Your task to perform on an android device: read, delete, or share a saved page in the chrome app Image 0: 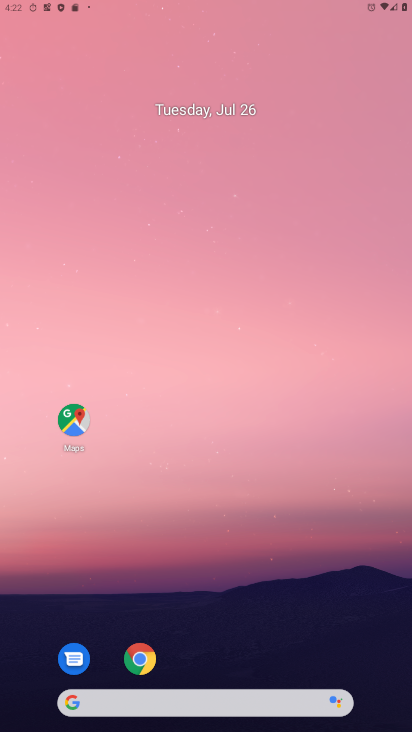
Step 0: press home button
Your task to perform on an android device: read, delete, or share a saved page in the chrome app Image 1: 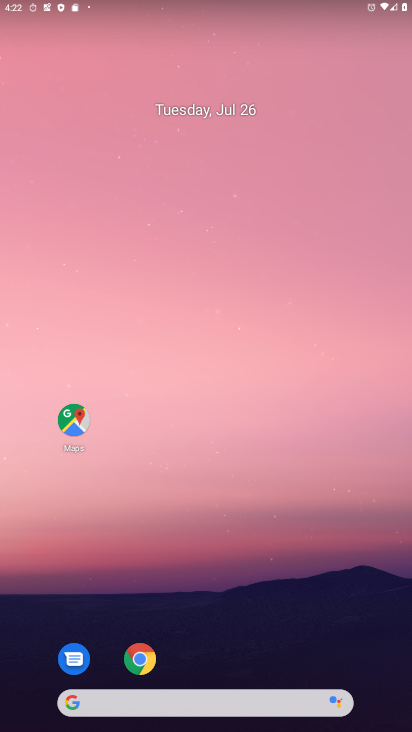
Step 1: drag from (211, 654) to (247, 110)
Your task to perform on an android device: read, delete, or share a saved page in the chrome app Image 2: 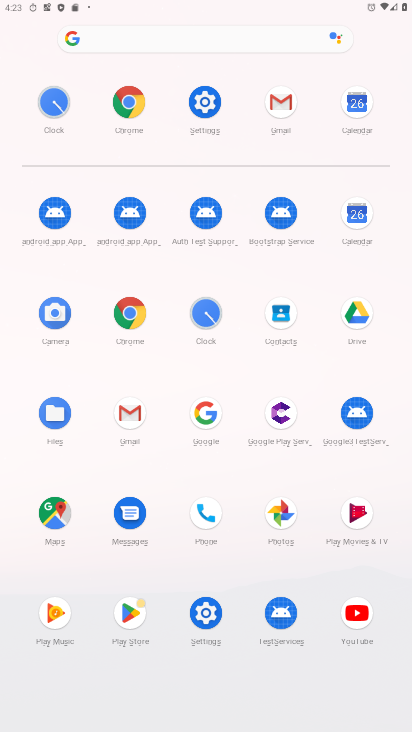
Step 2: click (130, 102)
Your task to perform on an android device: read, delete, or share a saved page in the chrome app Image 3: 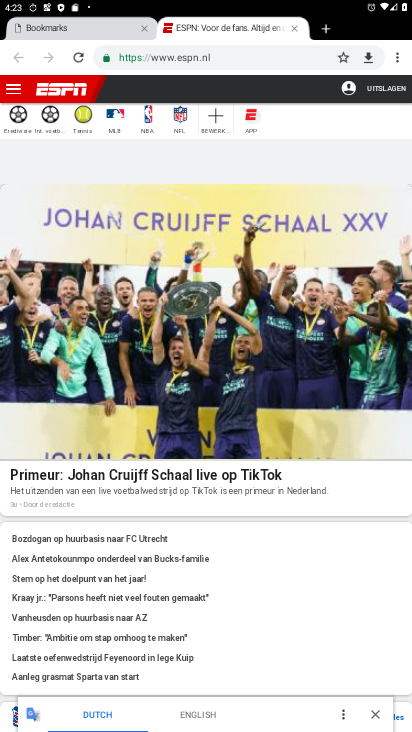
Step 3: drag from (398, 60) to (280, 247)
Your task to perform on an android device: read, delete, or share a saved page in the chrome app Image 4: 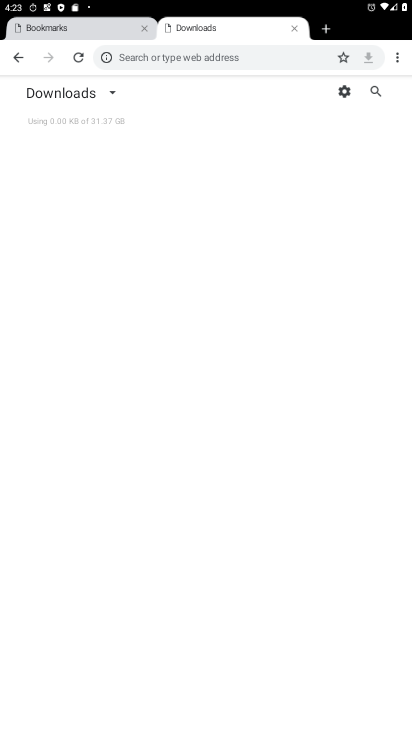
Step 4: click (113, 89)
Your task to perform on an android device: read, delete, or share a saved page in the chrome app Image 5: 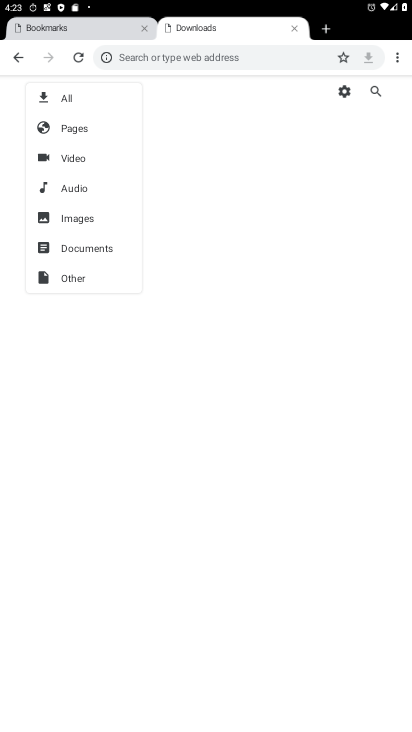
Step 5: click (80, 125)
Your task to perform on an android device: read, delete, or share a saved page in the chrome app Image 6: 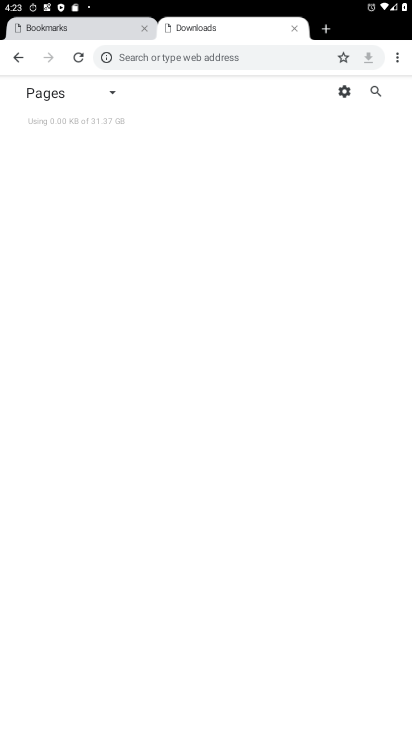
Step 6: task complete